Your task to perform on an android device: see creations saved in the google photos Image 0: 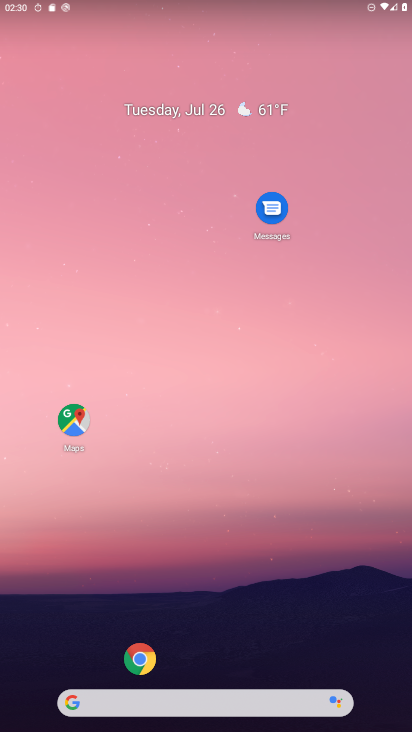
Step 0: drag from (77, 644) to (285, 168)
Your task to perform on an android device: see creations saved in the google photos Image 1: 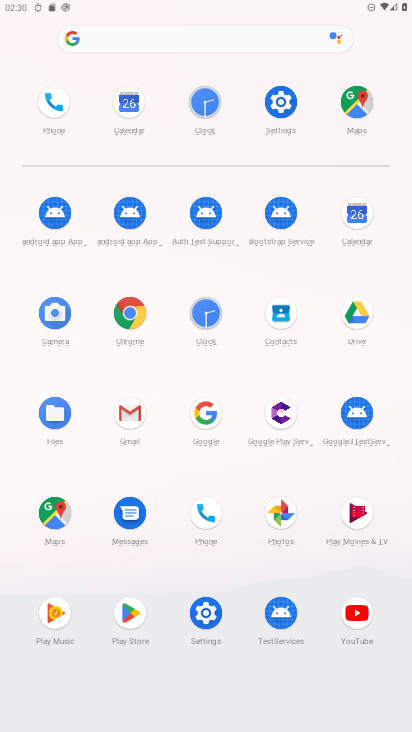
Step 1: click (276, 521)
Your task to perform on an android device: see creations saved in the google photos Image 2: 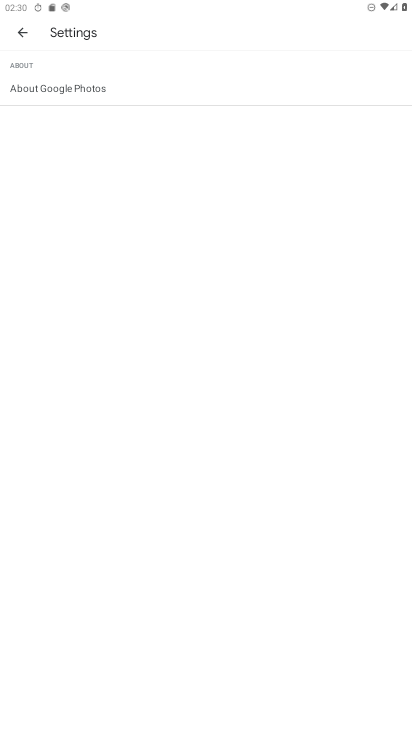
Step 2: click (14, 31)
Your task to perform on an android device: see creations saved in the google photos Image 3: 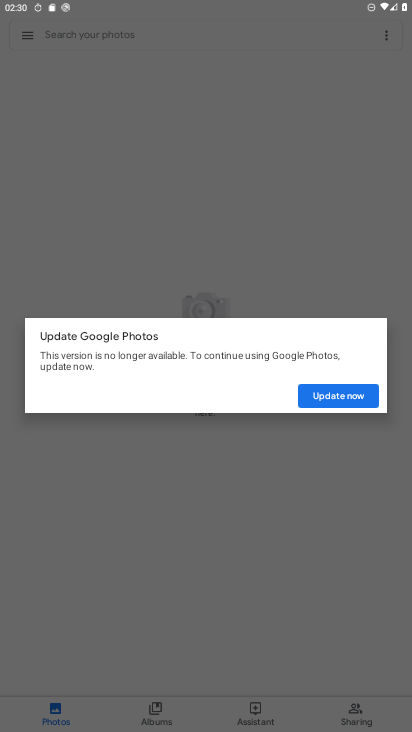
Step 3: click (333, 395)
Your task to perform on an android device: see creations saved in the google photos Image 4: 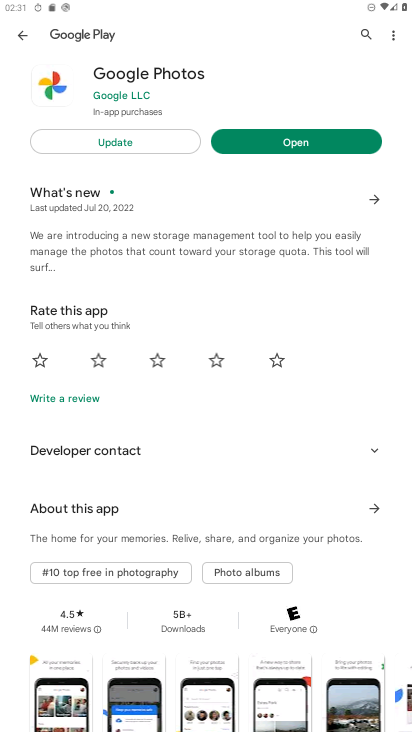
Step 4: task complete